Your task to perform on an android device: toggle data saver in the chrome app Image 0: 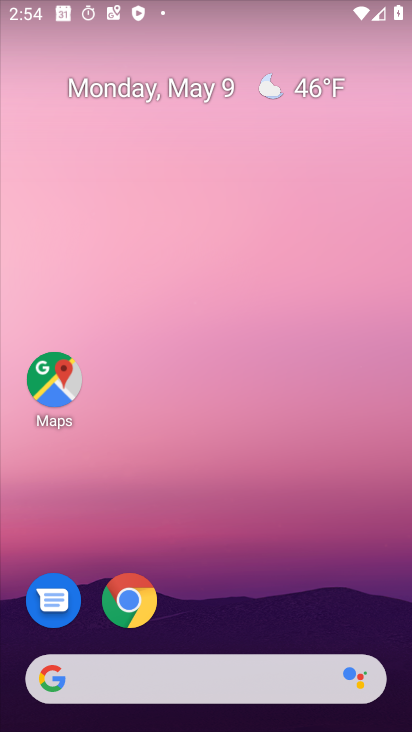
Step 0: click (130, 603)
Your task to perform on an android device: toggle data saver in the chrome app Image 1: 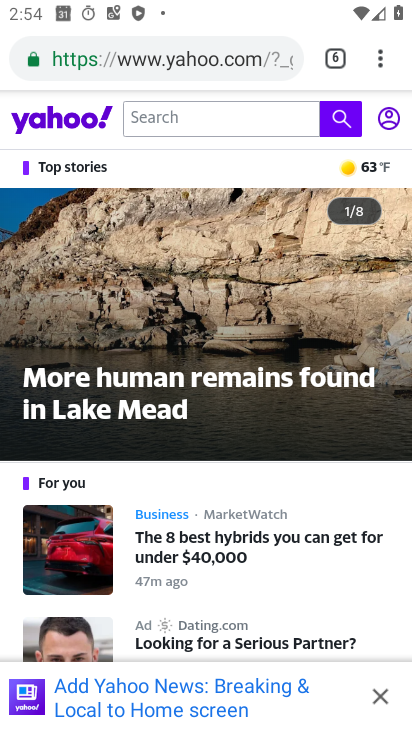
Step 1: drag from (384, 54) to (168, 607)
Your task to perform on an android device: toggle data saver in the chrome app Image 2: 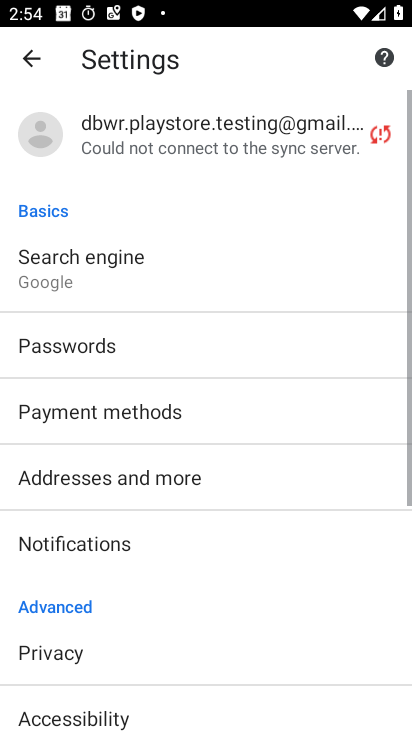
Step 2: drag from (176, 609) to (293, 81)
Your task to perform on an android device: toggle data saver in the chrome app Image 3: 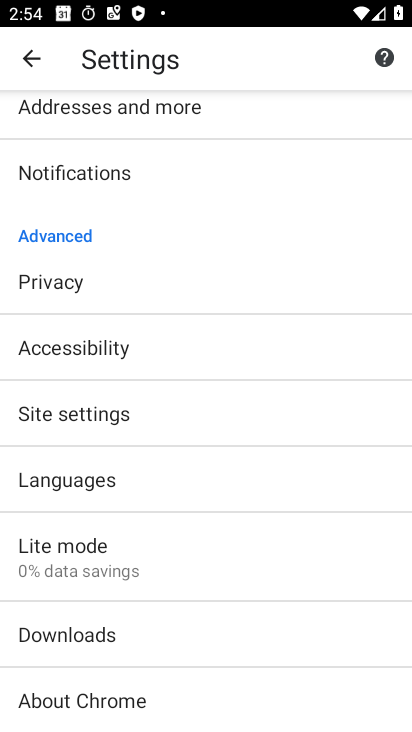
Step 3: click (82, 555)
Your task to perform on an android device: toggle data saver in the chrome app Image 4: 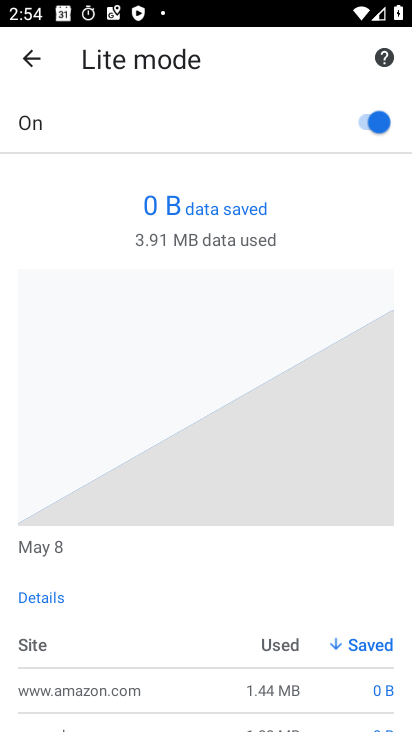
Step 4: click (372, 123)
Your task to perform on an android device: toggle data saver in the chrome app Image 5: 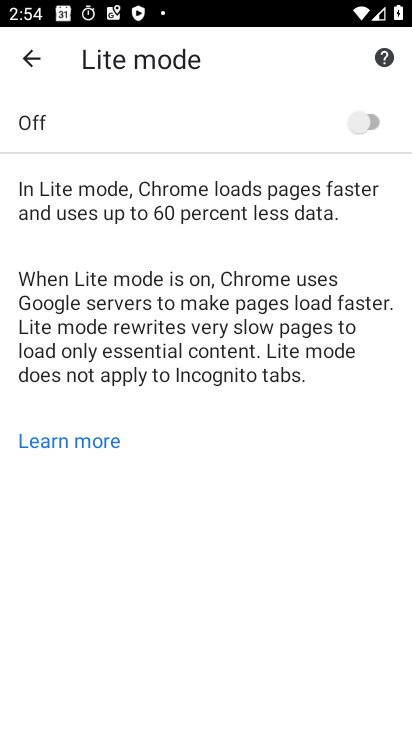
Step 5: task complete